Your task to perform on an android device: Is it going to rain this weekend? Image 0: 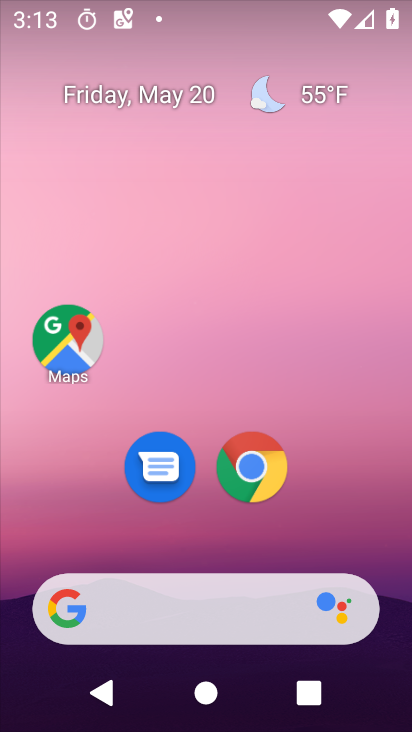
Step 0: click (146, 611)
Your task to perform on an android device: Is it going to rain this weekend? Image 1: 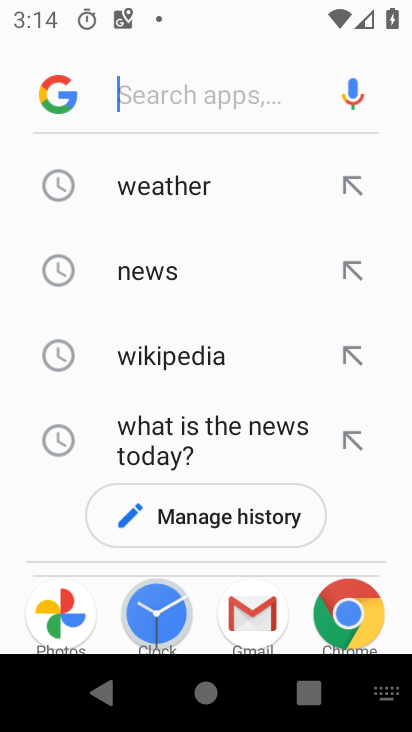
Step 1: type "is it going to rain this weekend"
Your task to perform on an android device: Is it going to rain this weekend? Image 2: 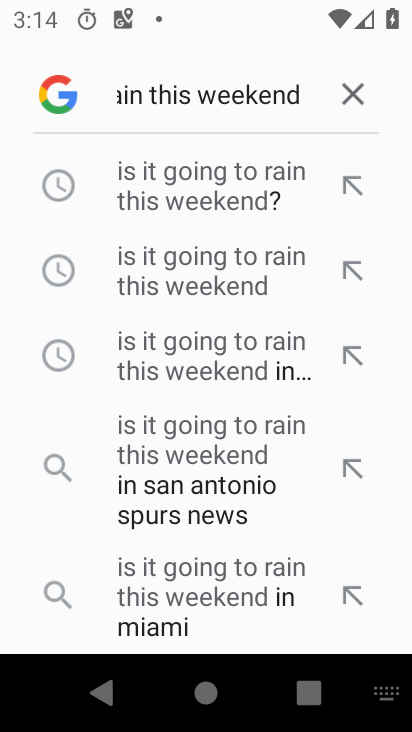
Step 2: click (143, 194)
Your task to perform on an android device: Is it going to rain this weekend? Image 3: 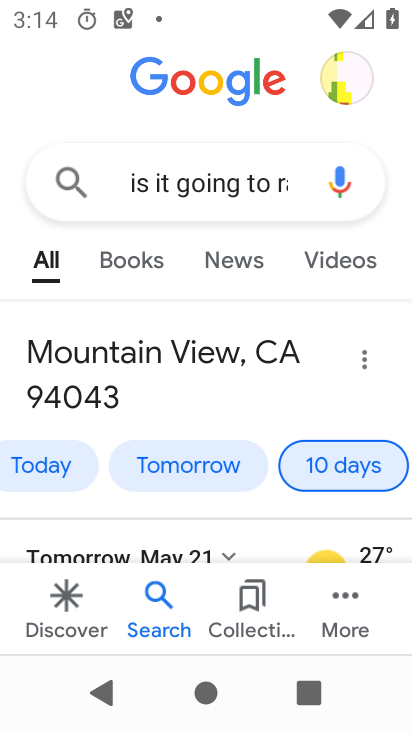
Step 3: task complete